Your task to perform on an android device: Add "duracell triple a" to the cart on ebay.com, then select checkout. Image 0: 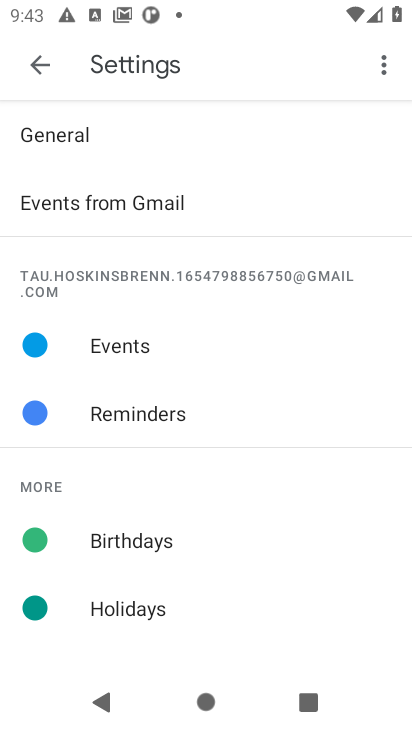
Step 0: press home button
Your task to perform on an android device: Add "duracell triple a" to the cart on ebay.com, then select checkout. Image 1: 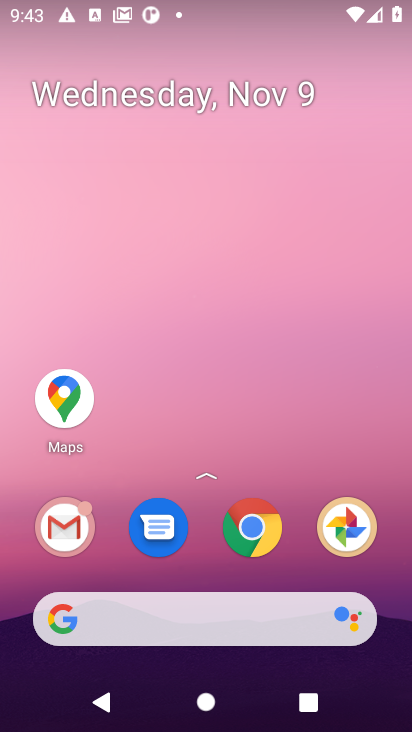
Step 1: click (253, 528)
Your task to perform on an android device: Add "duracell triple a" to the cart on ebay.com, then select checkout. Image 2: 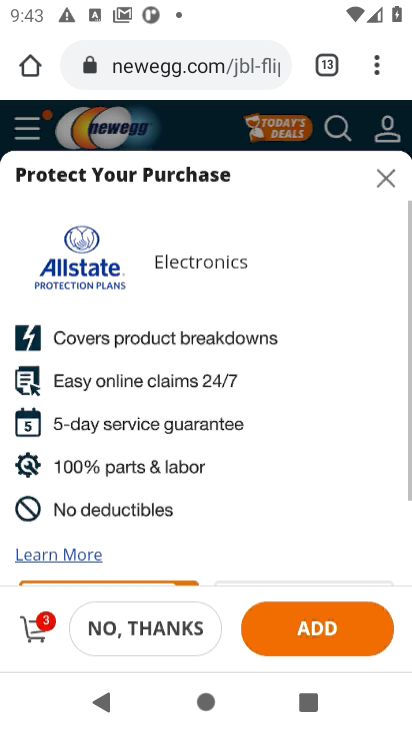
Step 2: click (157, 56)
Your task to perform on an android device: Add "duracell triple a" to the cart on ebay.com, then select checkout. Image 3: 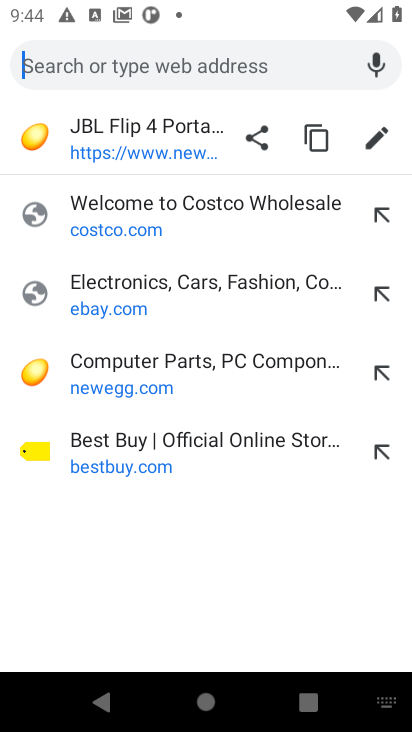
Step 3: click (97, 305)
Your task to perform on an android device: Add "duracell triple a" to the cart on ebay.com, then select checkout. Image 4: 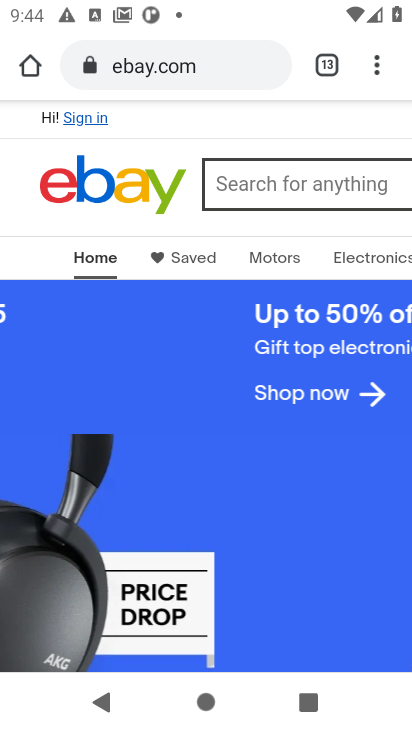
Step 4: click (283, 194)
Your task to perform on an android device: Add "duracell triple a" to the cart on ebay.com, then select checkout. Image 5: 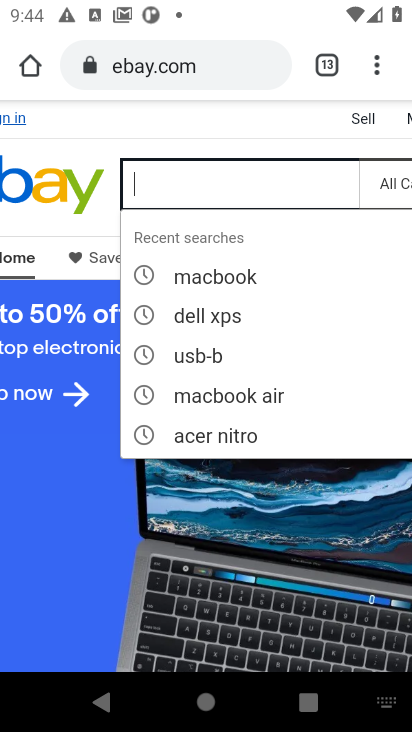
Step 5: type "duracell triple a"
Your task to perform on an android device: Add "duracell triple a" to the cart on ebay.com, then select checkout. Image 6: 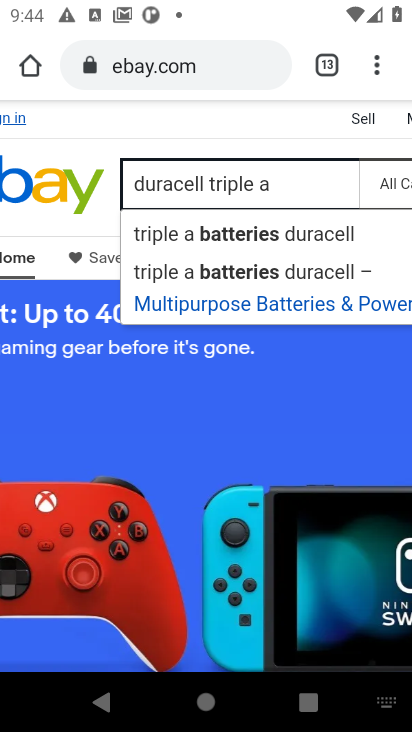
Step 6: drag from (314, 188) to (6, 179)
Your task to perform on an android device: Add "duracell triple a" to the cart on ebay.com, then select checkout. Image 7: 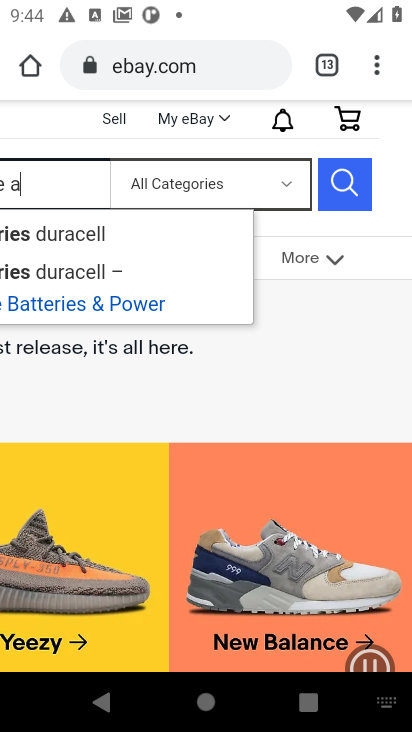
Step 7: click (342, 190)
Your task to perform on an android device: Add "duracell triple a" to the cart on ebay.com, then select checkout. Image 8: 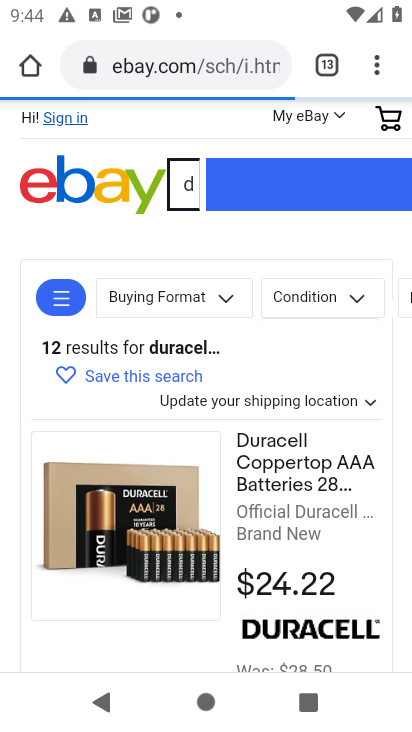
Step 8: drag from (115, 491) to (115, 322)
Your task to perform on an android device: Add "duracell triple a" to the cart on ebay.com, then select checkout. Image 9: 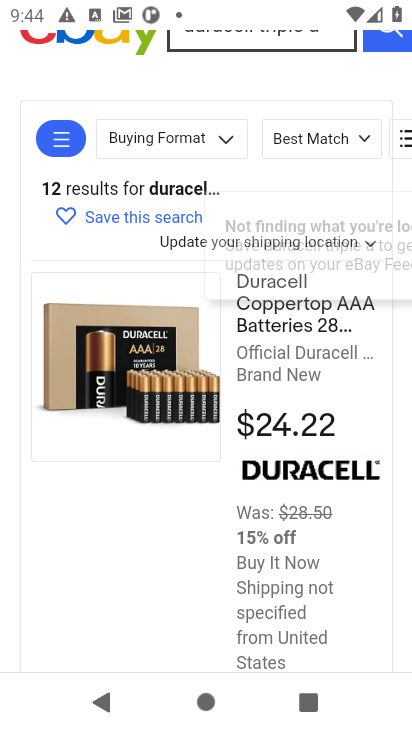
Step 9: click (122, 394)
Your task to perform on an android device: Add "duracell triple a" to the cart on ebay.com, then select checkout. Image 10: 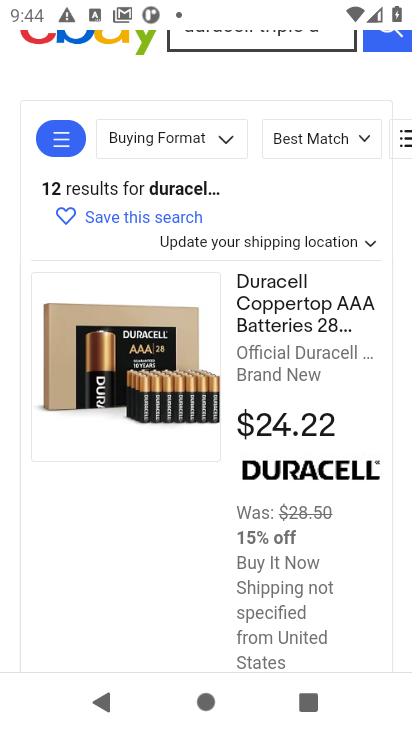
Step 10: click (146, 412)
Your task to perform on an android device: Add "duracell triple a" to the cart on ebay.com, then select checkout. Image 11: 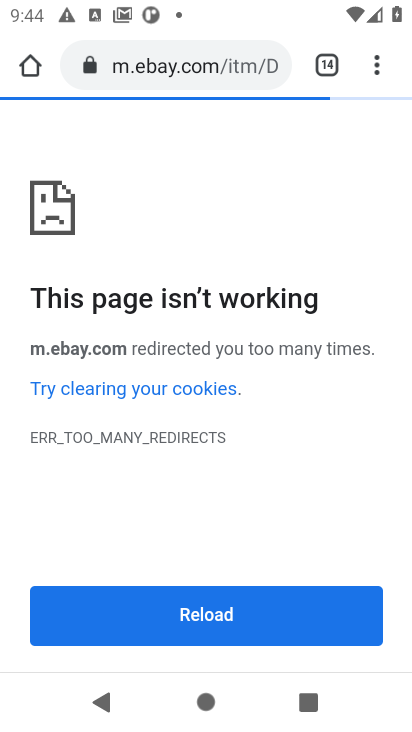
Step 11: task complete